Your task to perform on an android device: open a bookmark in the chrome app Image 0: 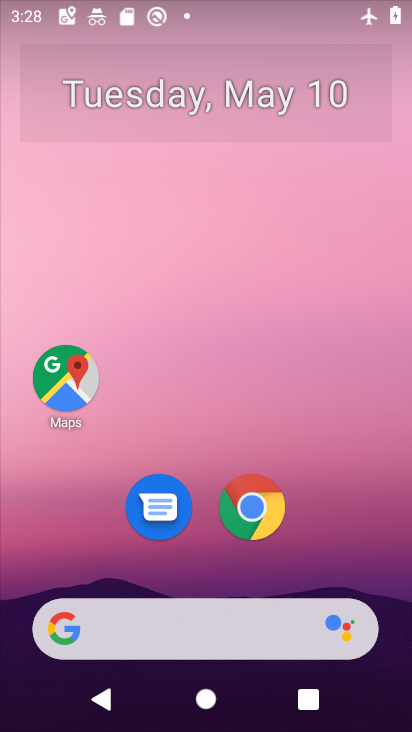
Step 0: drag from (227, 162) to (373, 167)
Your task to perform on an android device: open a bookmark in the chrome app Image 1: 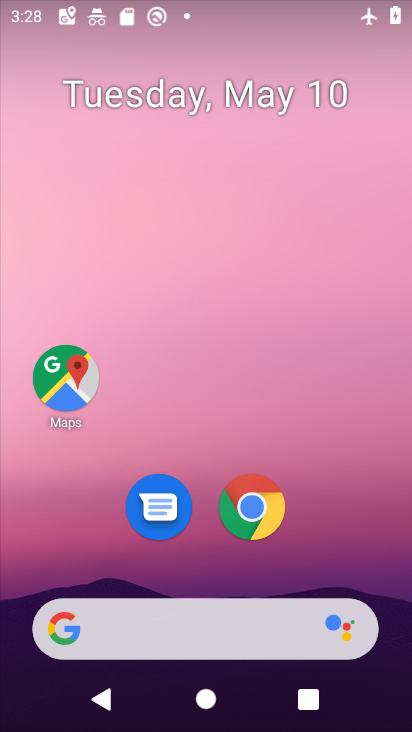
Step 1: click (241, 494)
Your task to perform on an android device: open a bookmark in the chrome app Image 2: 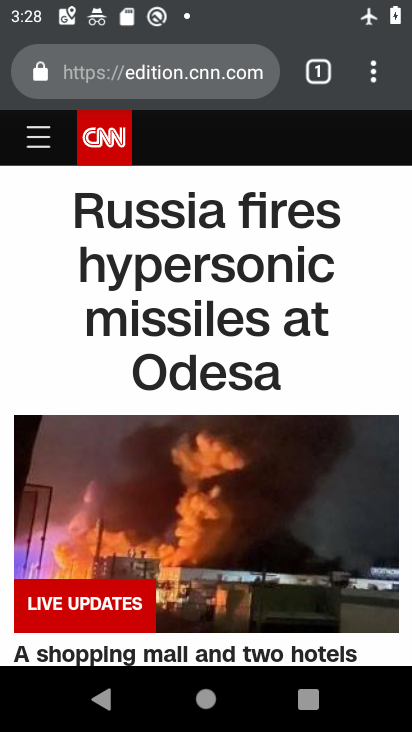
Step 2: click (373, 76)
Your task to perform on an android device: open a bookmark in the chrome app Image 3: 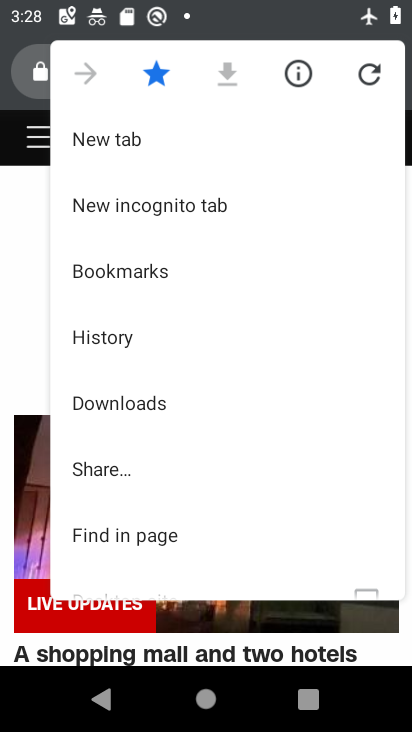
Step 3: click (155, 282)
Your task to perform on an android device: open a bookmark in the chrome app Image 4: 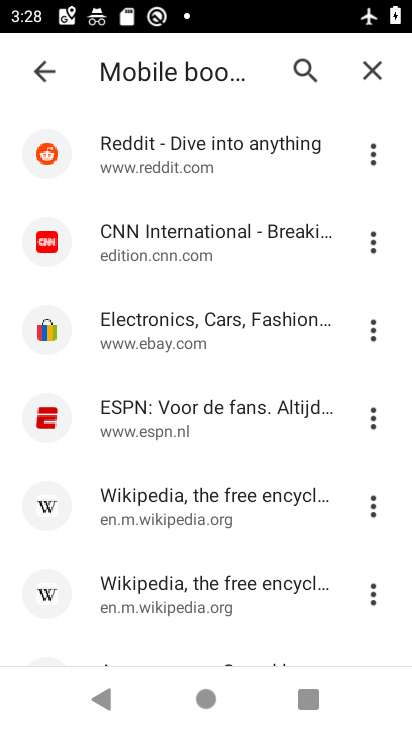
Step 4: task complete